Your task to perform on an android device: Go to Reddit.com Image 0: 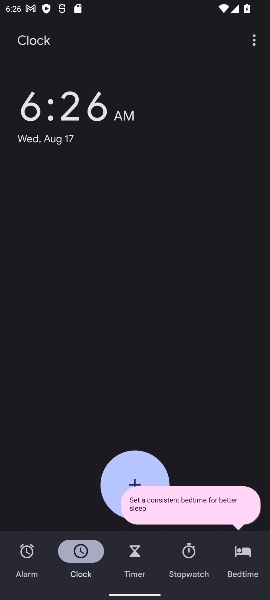
Step 0: press home button
Your task to perform on an android device: Go to Reddit.com Image 1: 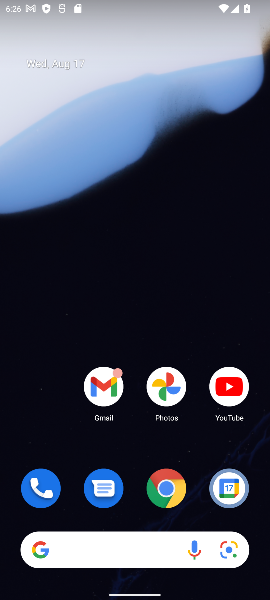
Step 1: drag from (133, 536) to (96, 91)
Your task to perform on an android device: Go to Reddit.com Image 2: 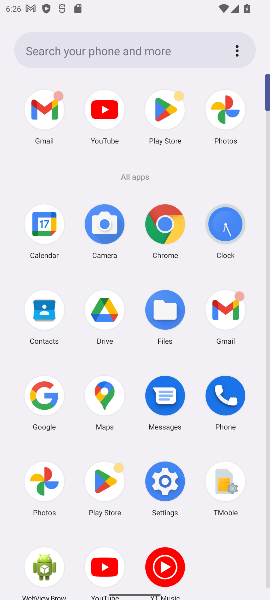
Step 2: click (164, 224)
Your task to perform on an android device: Go to Reddit.com Image 3: 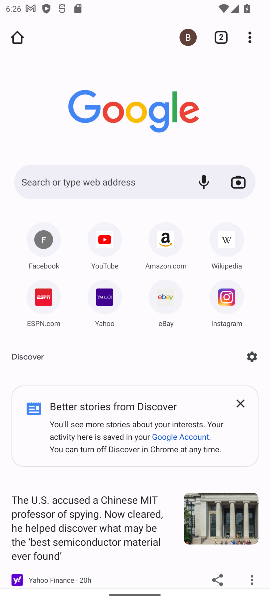
Step 3: click (68, 179)
Your task to perform on an android device: Go to Reddit.com Image 4: 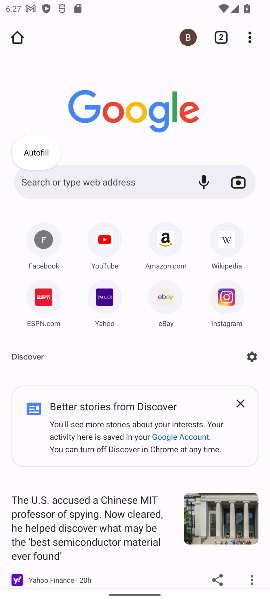
Step 4: click (57, 184)
Your task to perform on an android device: Go to Reddit.com Image 5: 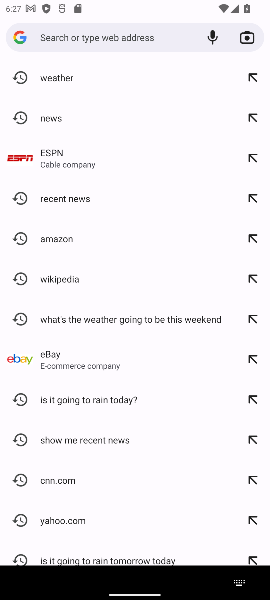
Step 5: type " Reddit.com"
Your task to perform on an android device: Go to Reddit.com Image 6: 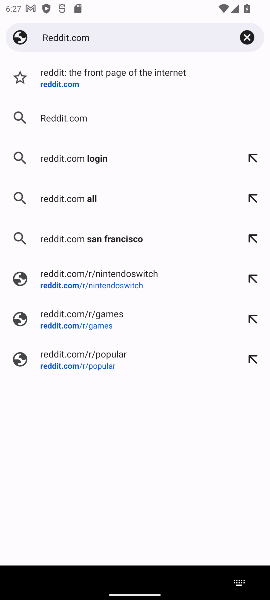
Step 6: press enter
Your task to perform on an android device: Go to Reddit.com Image 7: 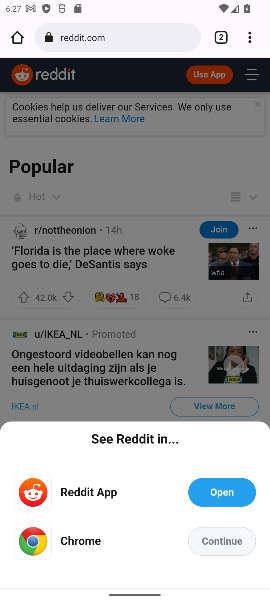
Step 7: task complete